Your task to perform on an android device: open app "Skype" (install if not already installed) Image 0: 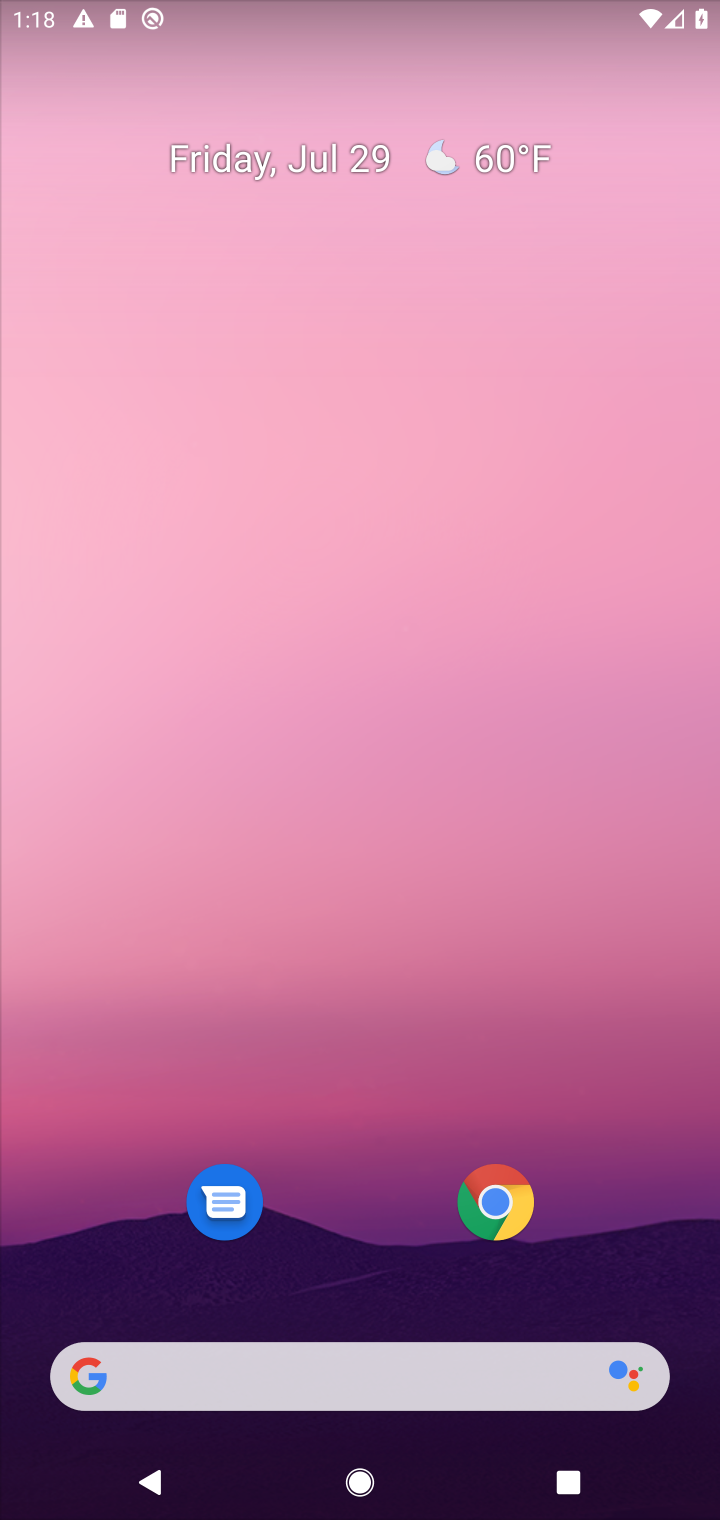
Step 0: drag from (442, 1306) to (375, 6)
Your task to perform on an android device: open app "Skype" (install if not already installed) Image 1: 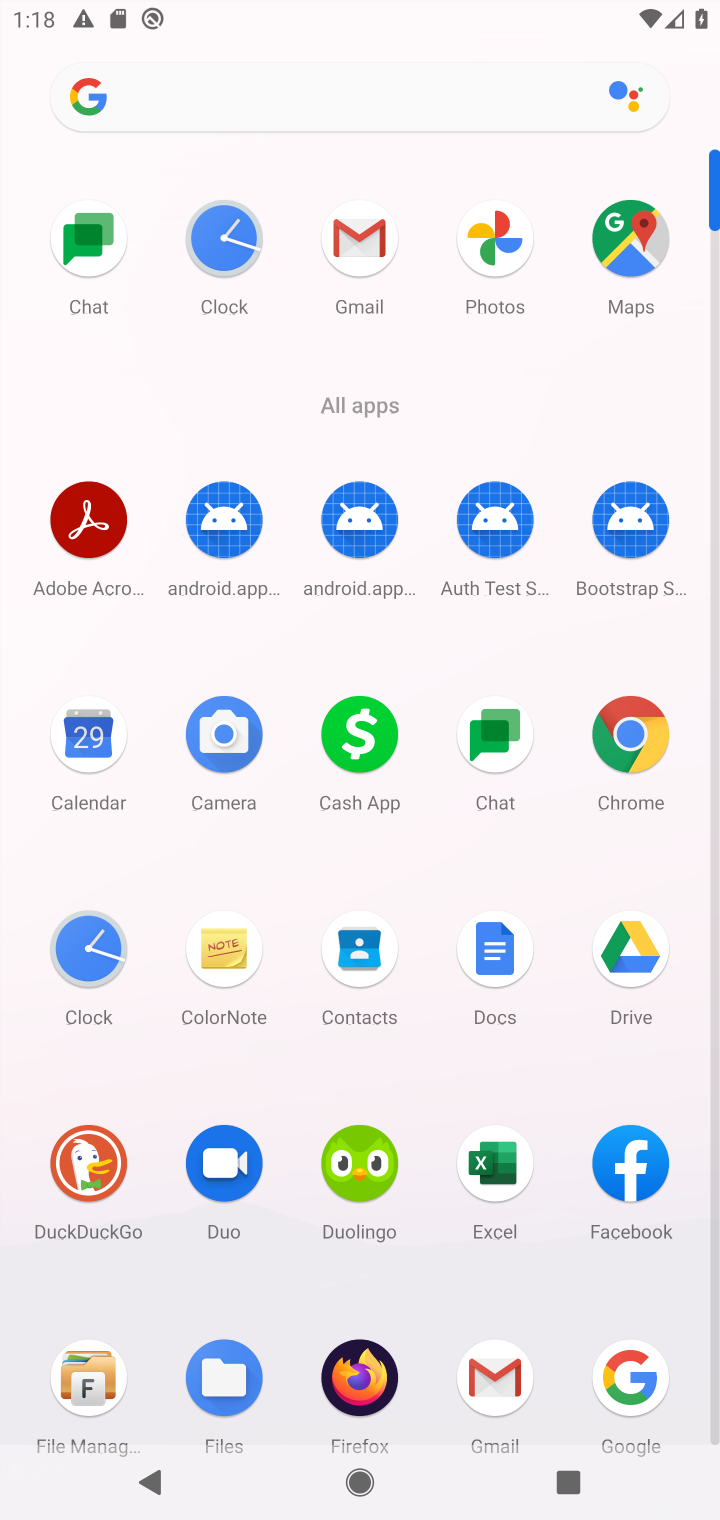
Step 1: click (325, 81)
Your task to perform on an android device: open app "Skype" (install if not already installed) Image 2: 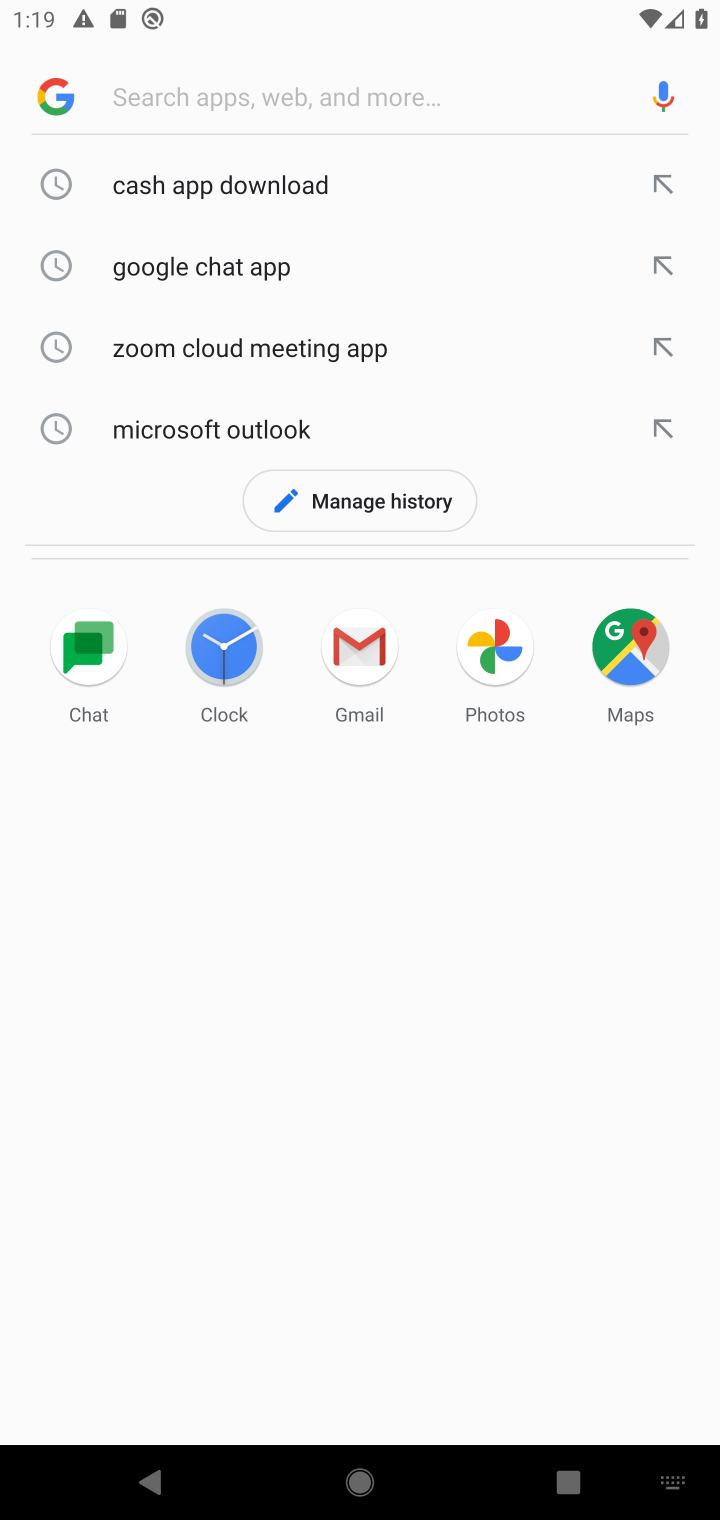
Step 2: type "skype"
Your task to perform on an android device: open app "Skype" (install if not already installed) Image 3: 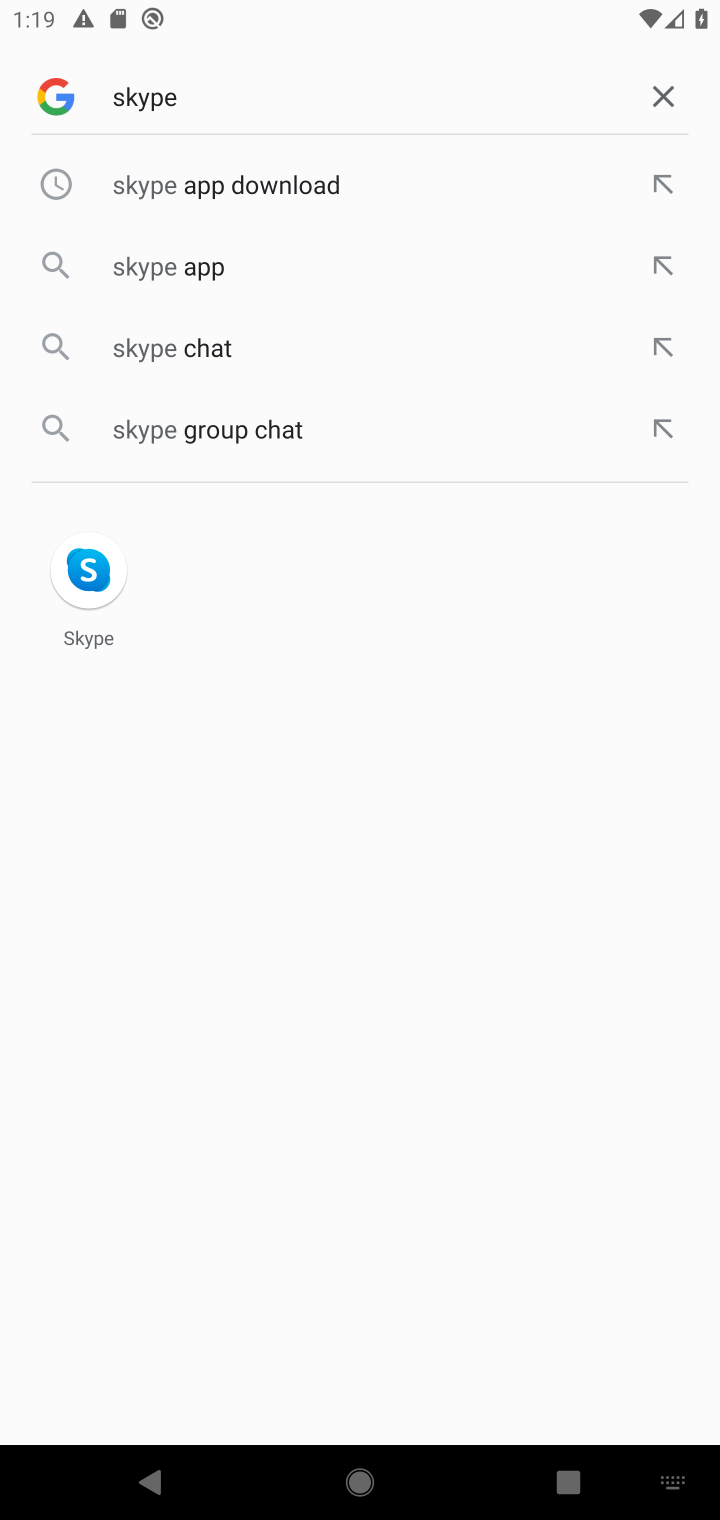
Step 3: click (257, 251)
Your task to perform on an android device: open app "Skype" (install if not already installed) Image 4: 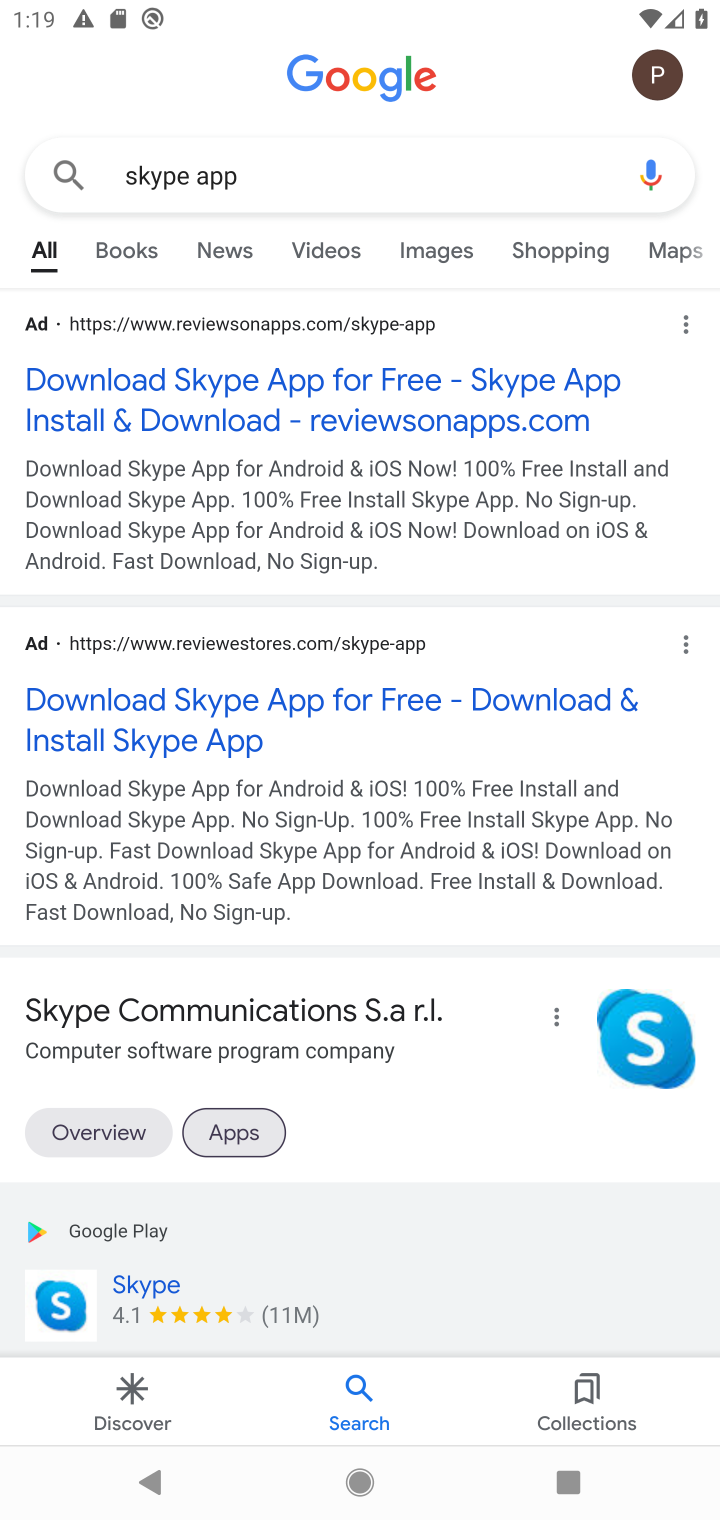
Step 4: drag from (501, 1208) to (490, 431)
Your task to perform on an android device: open app "Skype" (install if not already installed) Image 5: 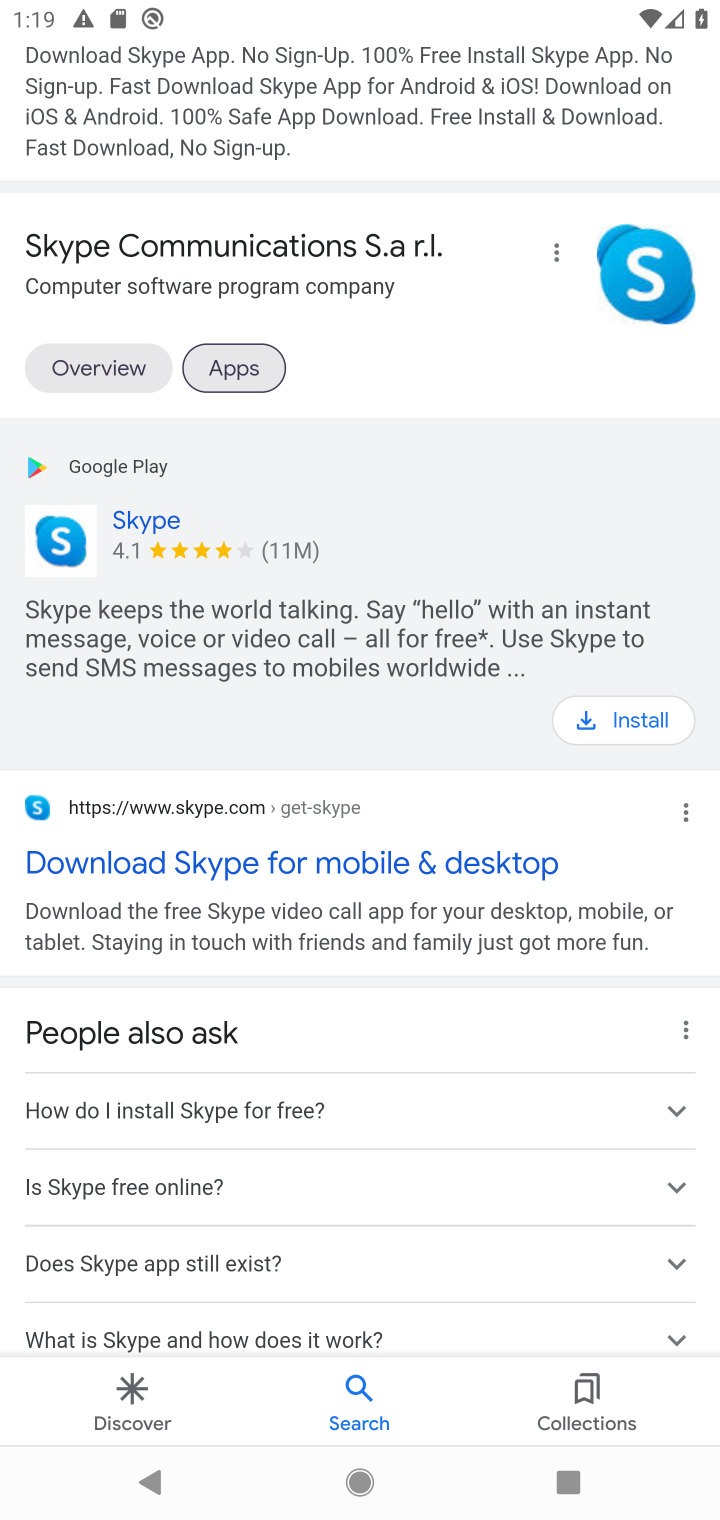
Step 5: click (631, 726)
Your task to perform on an android device: open app "Skype" (install if not already installed) Image 6: 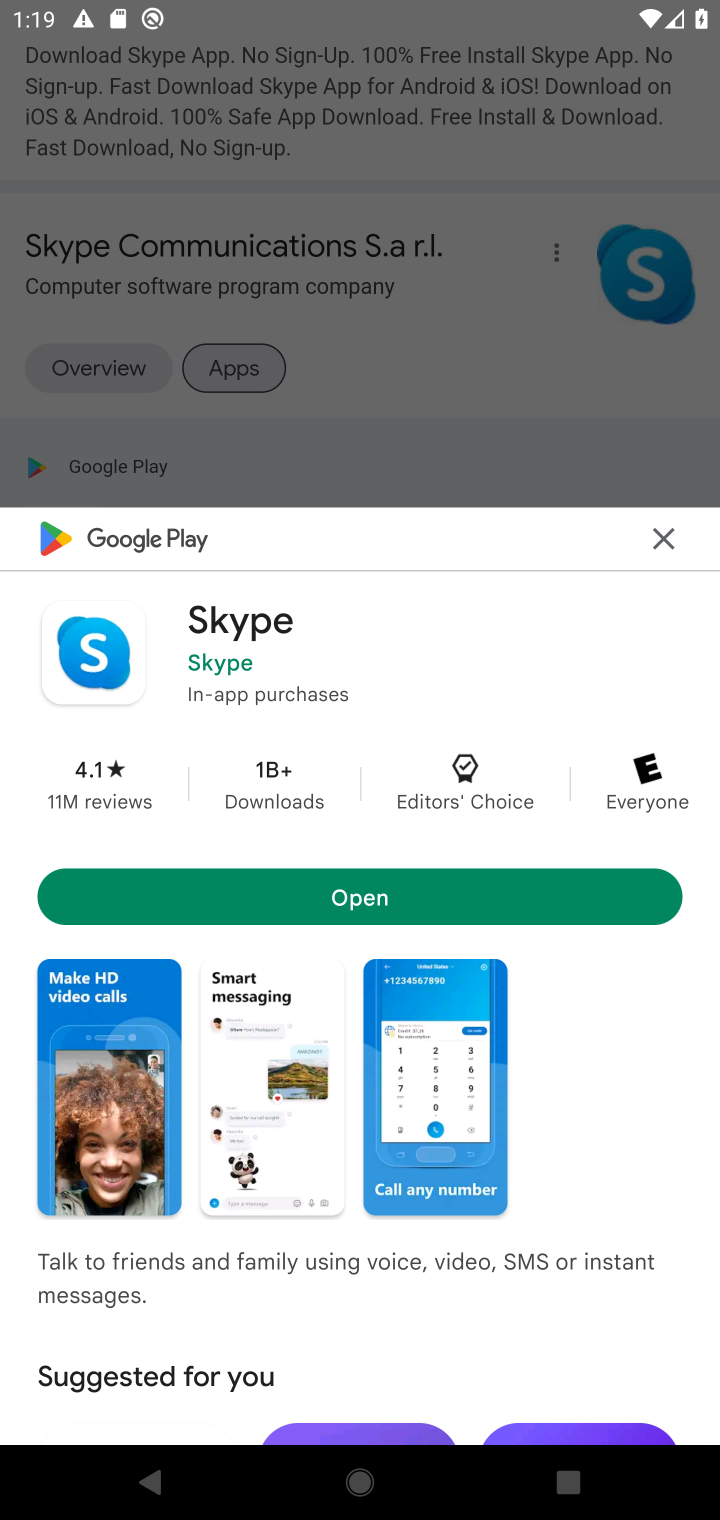
Step 6: click (496, 899)
Your task to perform on an android device: open app "Skype" (install if not already installed) Image 7: 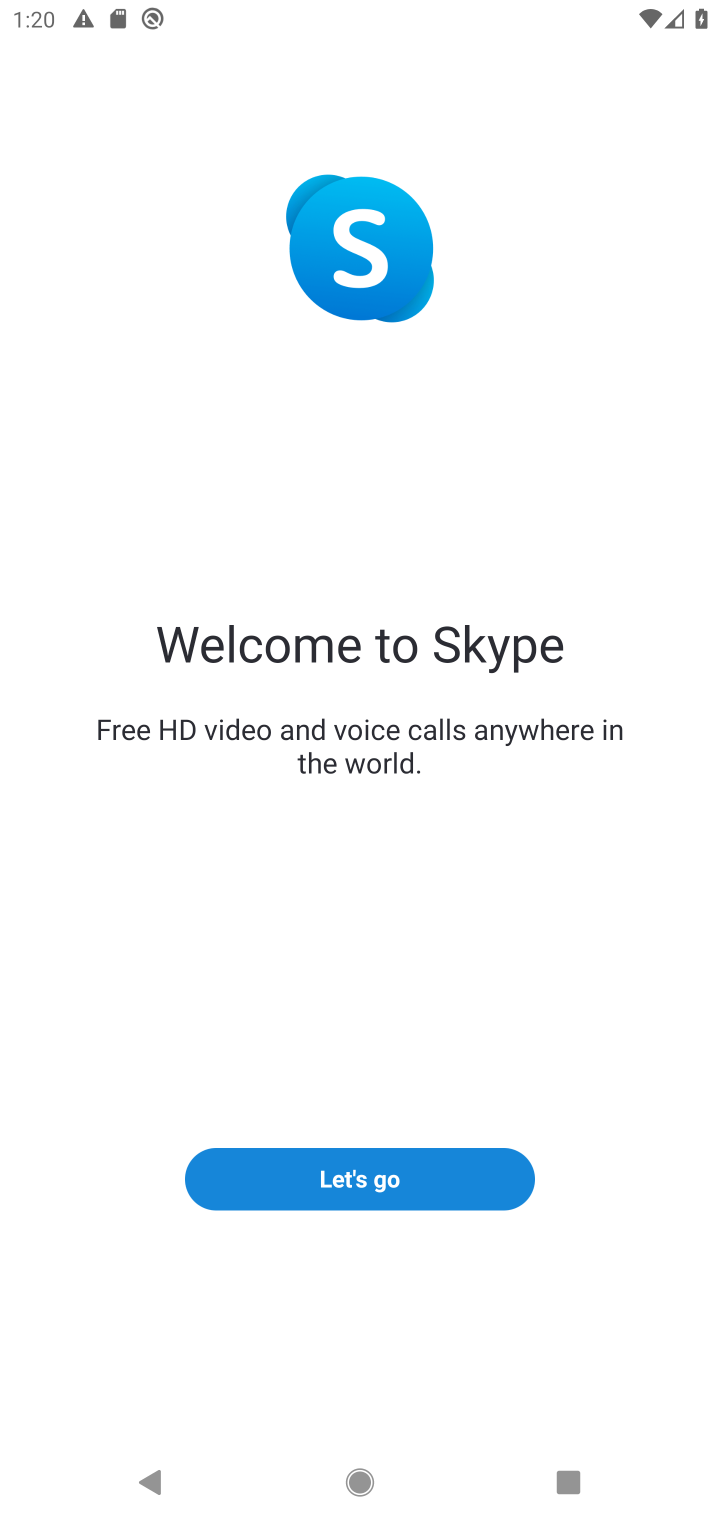
Step 7: task complete